Your task to perform on an android device: Go to privacy settings Image 0: 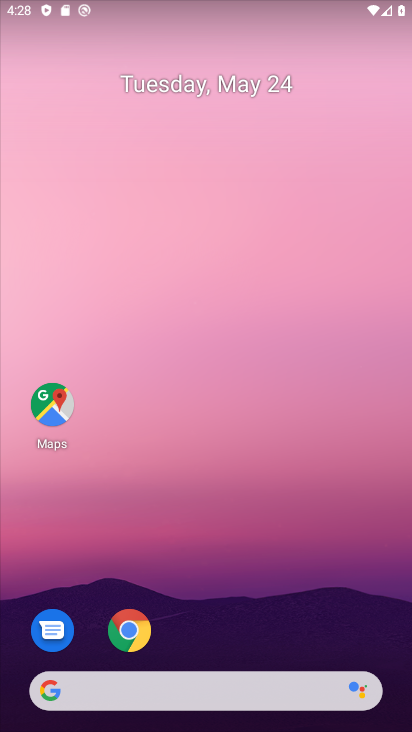
Step 0: drag from (181, 650) to (238, 14)
Your task to perform on an android device: Go to privacy settings Image 1: 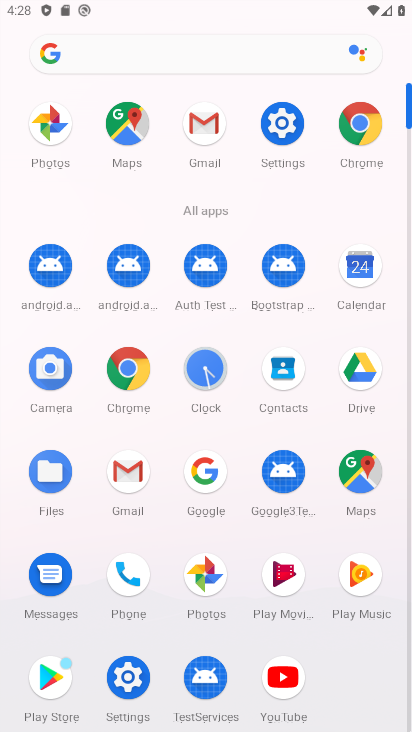
Step 1: click (281, 115)
Your task to perform on an android device: Go to privacy settings Image 2: 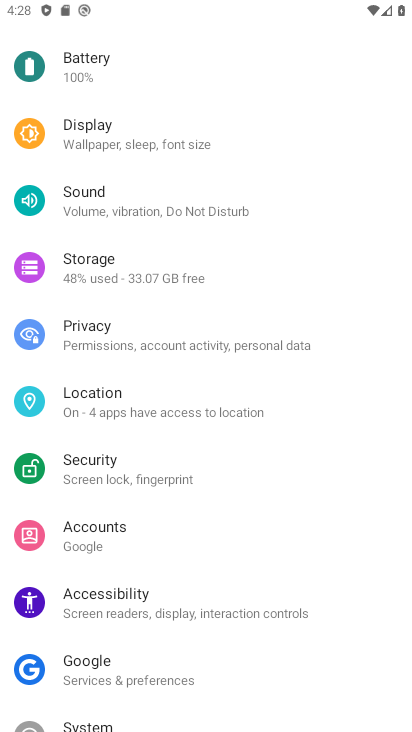
Step 2: click (81, 342)
Your task to perform on an android device: Go to privacy settings Image 3: 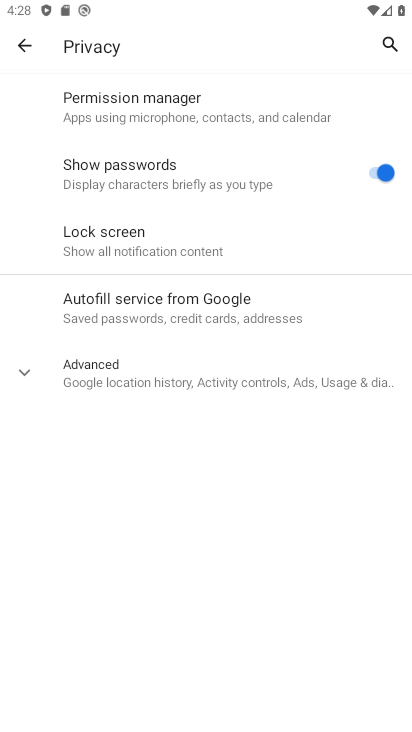
Step 3: task complete